Your task to perform on an android device: turn notification dots on Image 0: 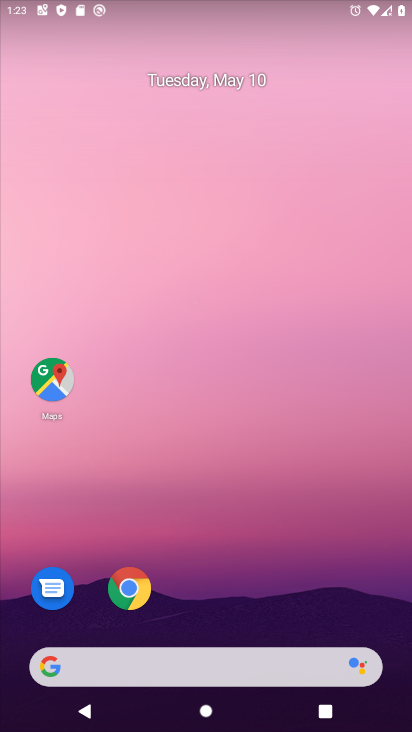
Step 0: drag from (303, 641) to (322, 222)
Your task to perform on an android device: turn notification dots on Image 1: 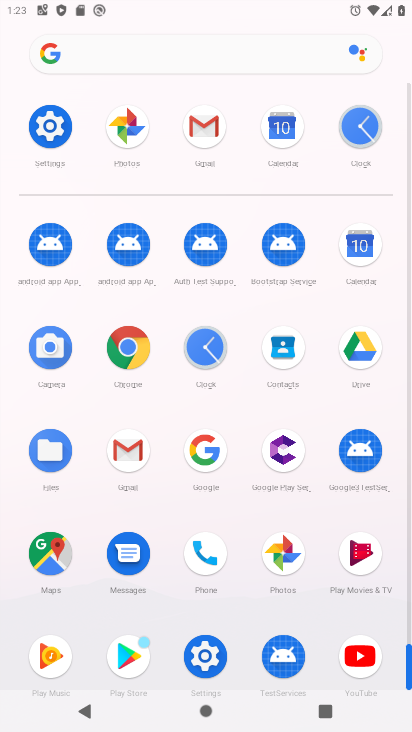
Step 1: click (53, 124)
Your task to perform on an android device: turn notification dots on Image 2: 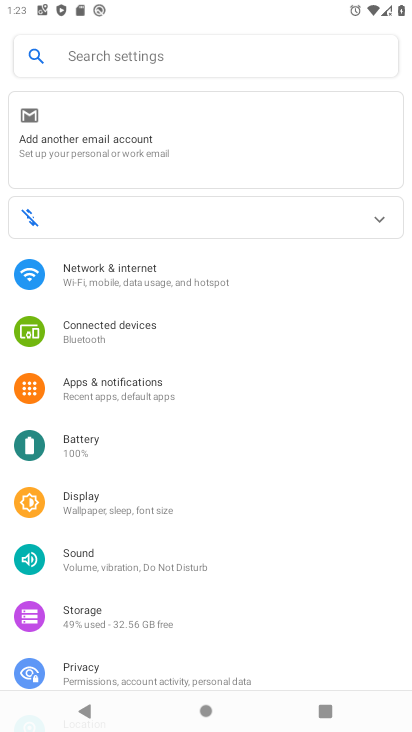
Step 2: click (216, 194)
Your task to perform on an android device: turn notification dots on Image 3: 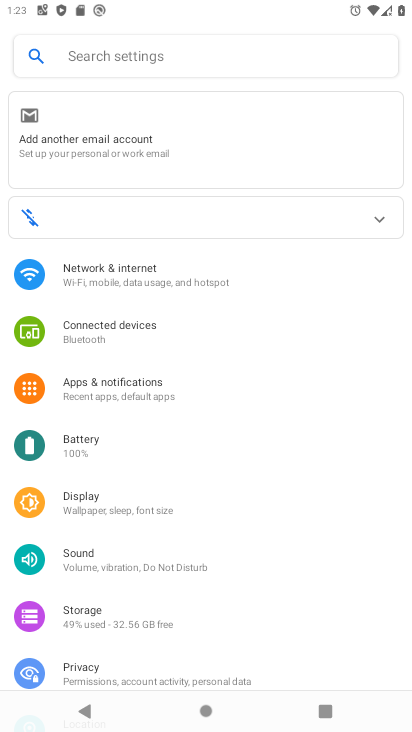
Step 3: type "notification dots"
Your task to perform on an android device: turn notification dots on Image 4: 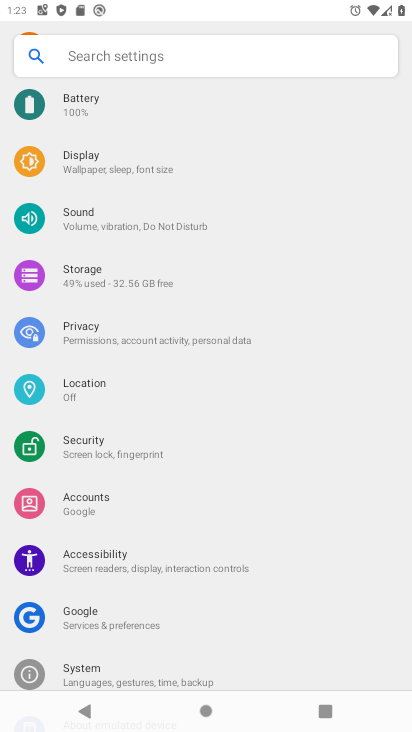
Step 4: click (230, 47)
Your task to perform on an android device: turn notification dots on Image 5: 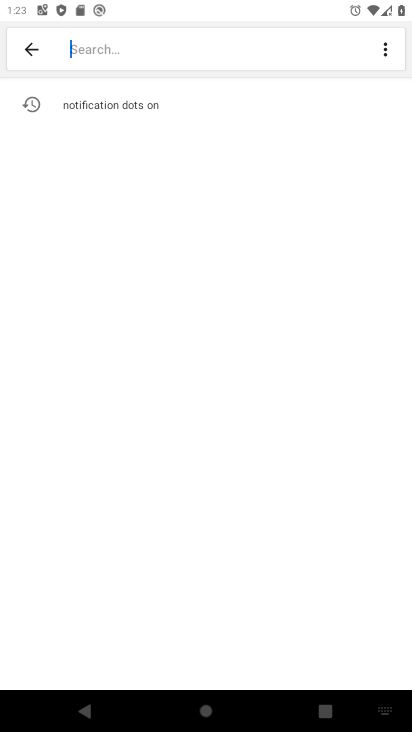
Step 5: type "notification dots"
Your task to perform on an android device: turn notification dots on Image 6: 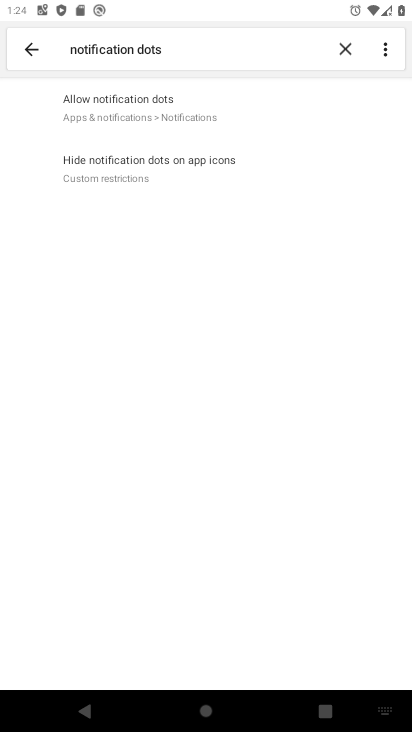
Step 6: click (118, 111)
Your task to perform on an android device: turn notification dots on Image 7: 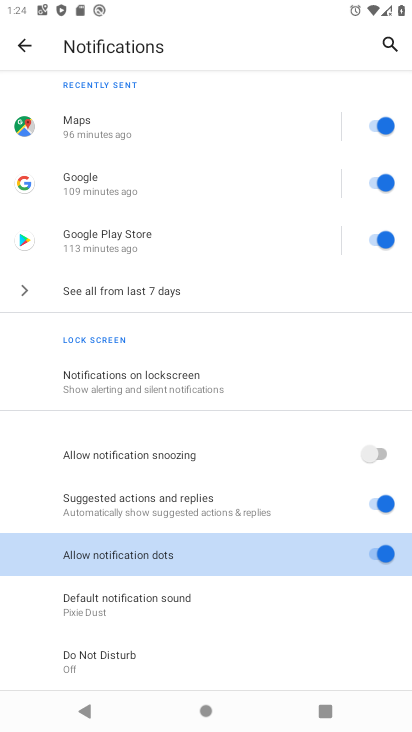
Step 7: task complete